Your task to perform on an android device: find photos in the google photos app Image 0: 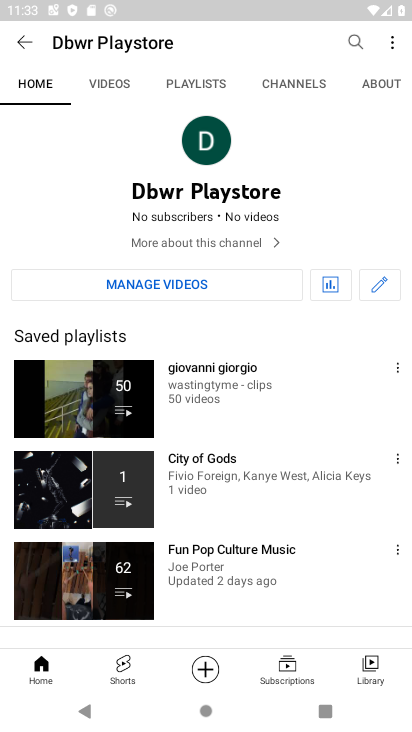
Step 0: task complete